Your task to perform on an android device: set the stopwatch Image 0: 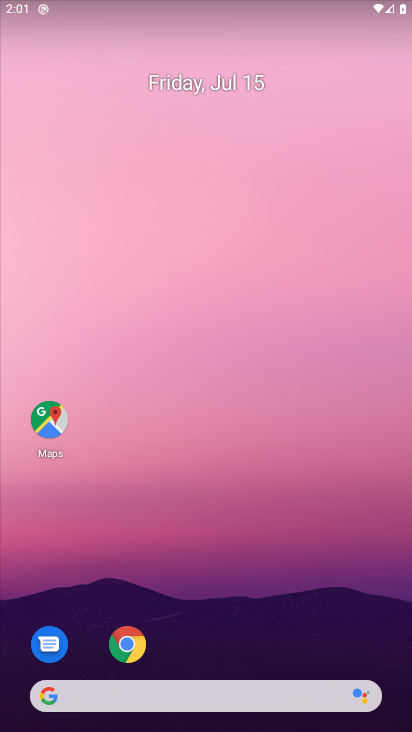
Step 0: drag from (14, 699) to (267, 152)
Your task to perform on an android device: set the stopwatch Image 1: 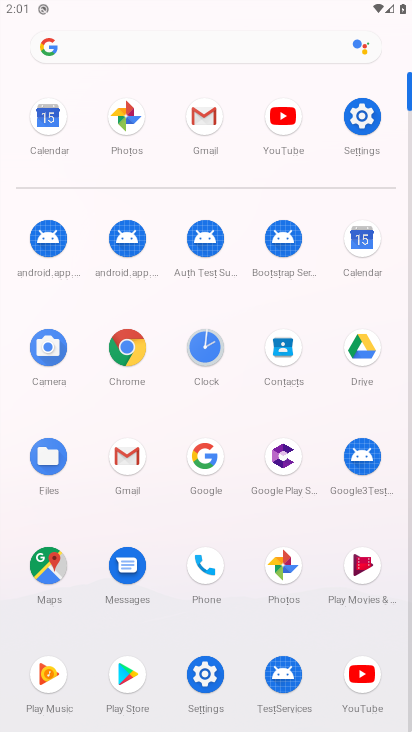
Step 1: click (207, 346)
Your task to perform on an android device: set the stopwatch Image 2: 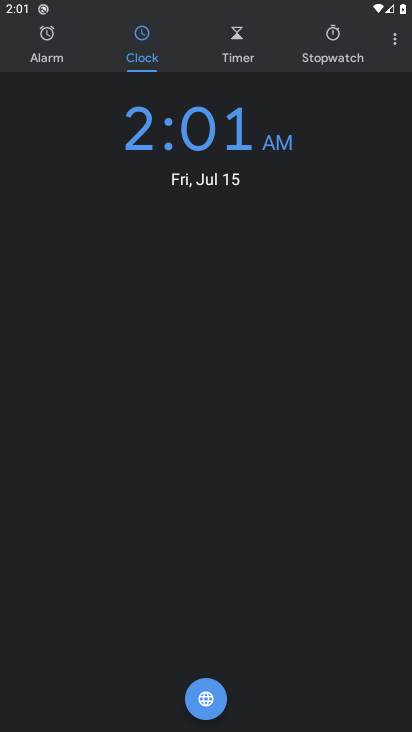
Step 2: click (307, 49)
Your task to perform on an android device: set the stopwatch Image 3: 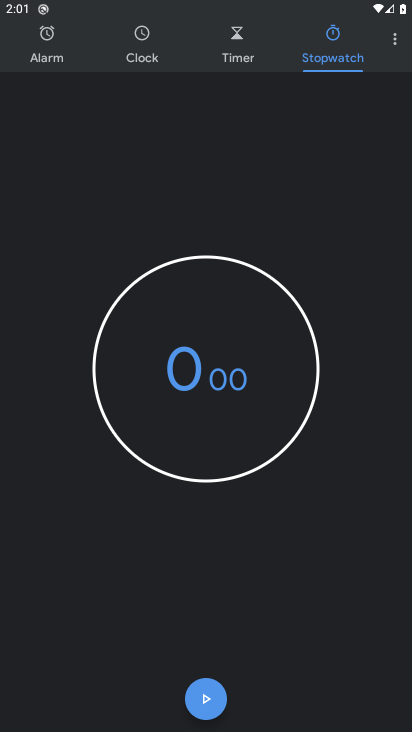
Step 3: click (196, 377)
Your task to perform on an android device: set the stopwatch Image 4: 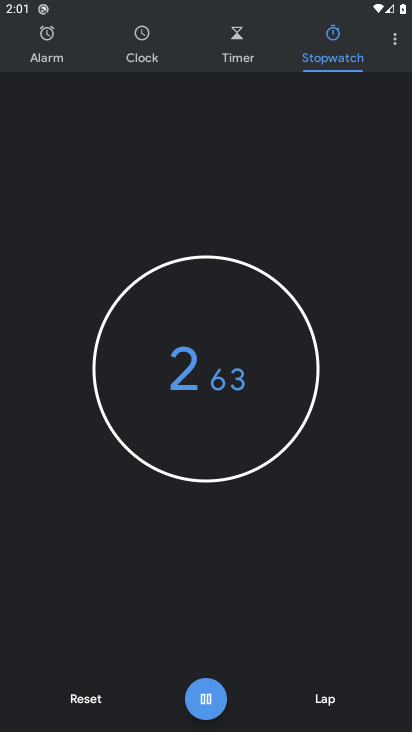
Step 4: click (219, 695)
Your task to perform on an android device: set the stopwatch Image 5: 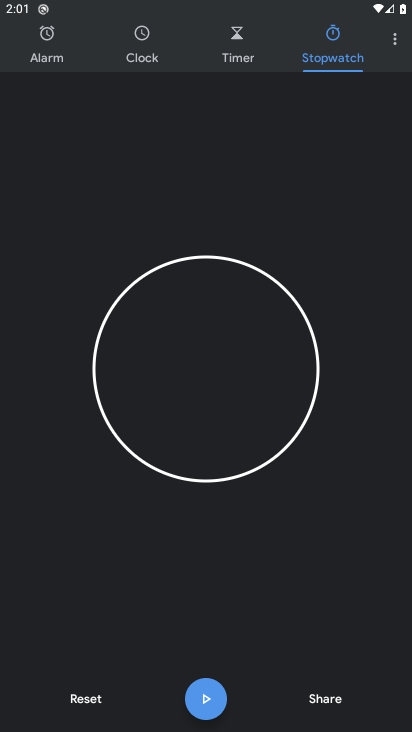
Step 5: click (201, 695)
Your task to perform on an android device: set the stopwatch Image 6: 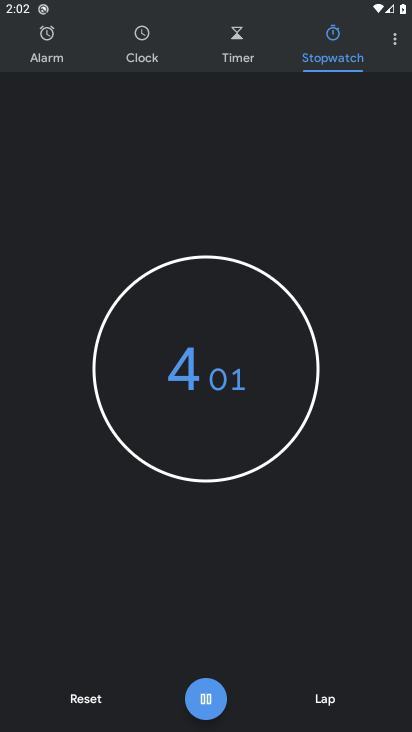
Step 6: task complete